Your task to perform on an android device: Check the weather Image 0: 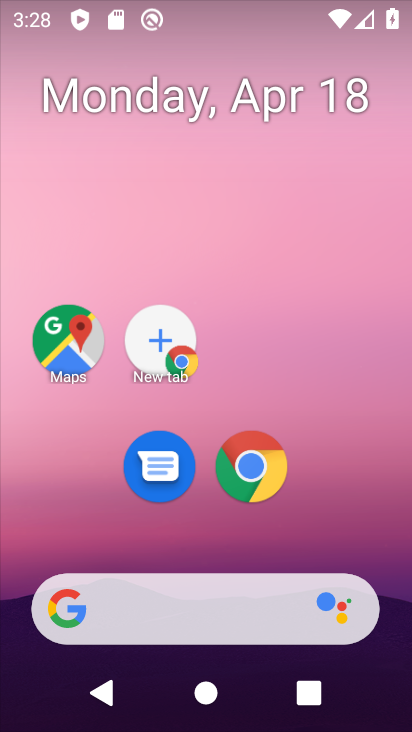
Step 0: drag from (371, 479) to (247, 7)
Your task to perform on an android device: Check the weather Image 1: 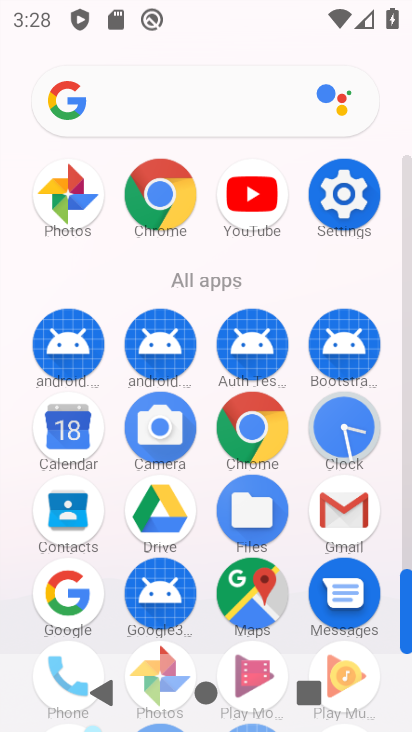
Step 1: click (155, 182)
Your task to perform on an android device: Check the weather Image 2: 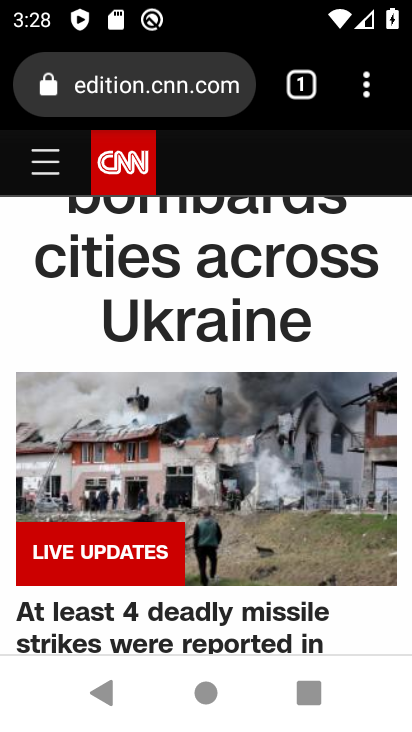
Step 2: click (223, 85)
Your task to perform on an android device: Check the weather Image 3: 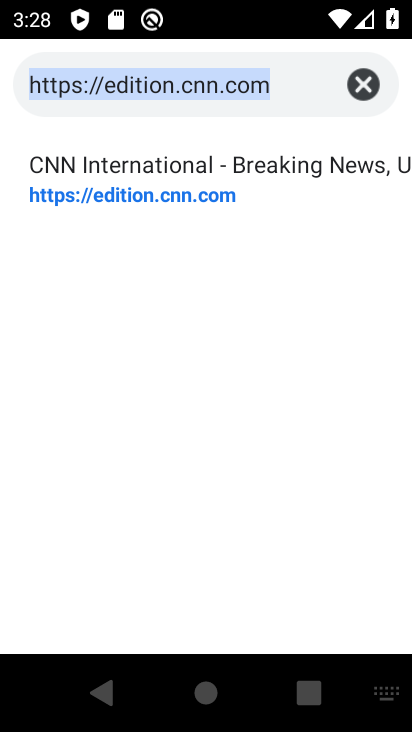
Step 3: click (359, 78)
Your task to perform on an android device: Check the weather Image 4: 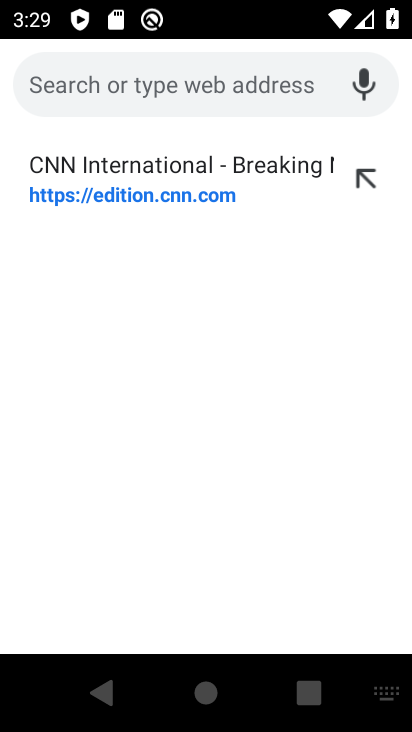
Step 4: type "weather"
Your task to perform on an android device: Check the weather Image 5: 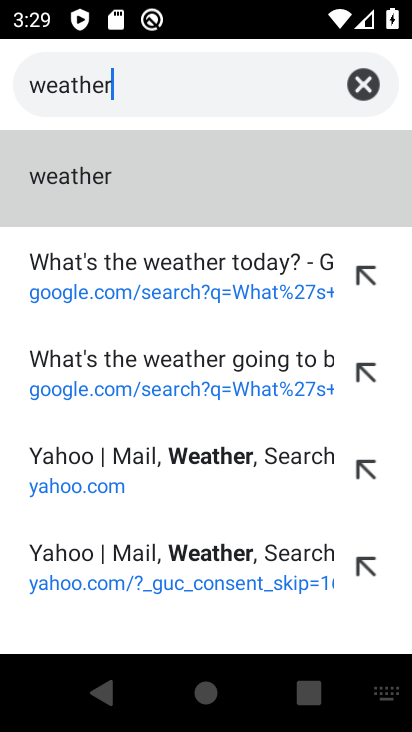
Step 5: click (170, 182)
Your task to perform on an android device: Check the weather Image 6: 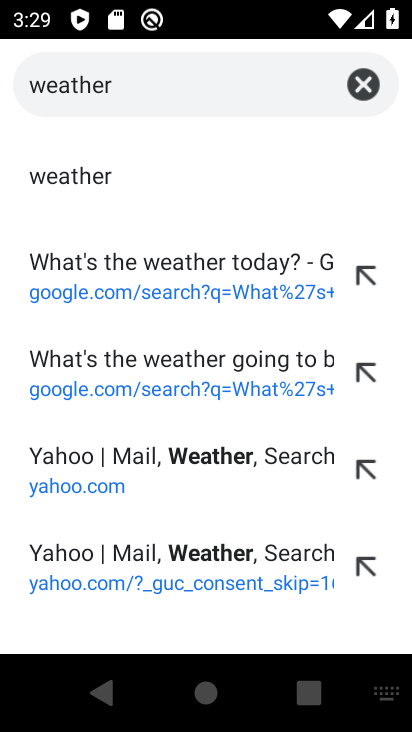
Step 6: click (126, 164)
Your task to perform on an android device: Check the weather Image 7: 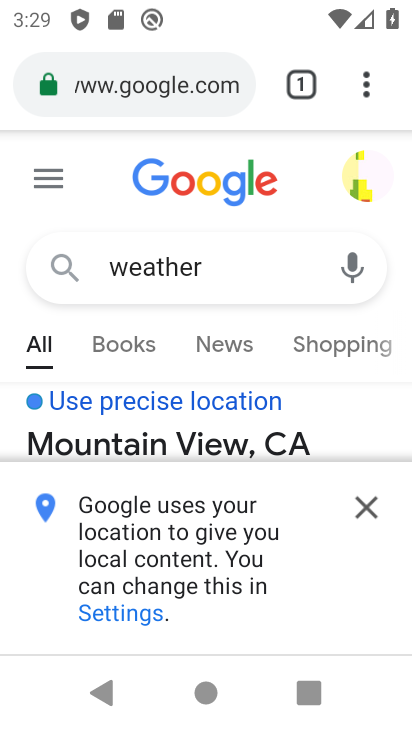
Step 7: drag from (266, 373) to (267, 179)
Your task to perform on an android device: Check the weather Image 8: 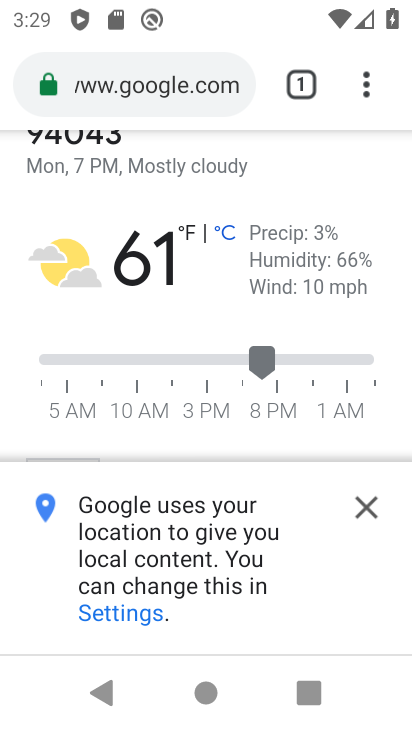
Step 8: click (365, 516)
Your task to perform on an android device: Check the weather Image 9: 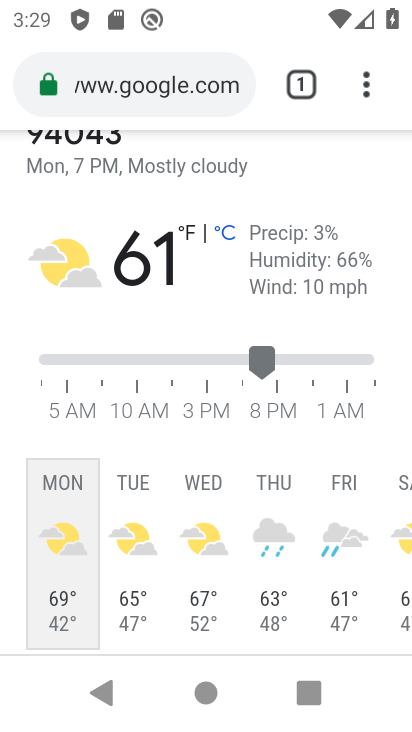
Step 9: click (356, 216)
Your task to perform on an android device: Check the weather Image 10: 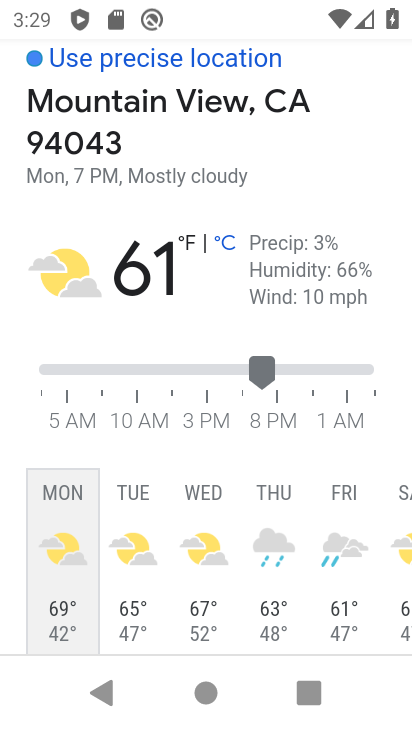
Step 10: task complete